Your task to perform on an android device: Go to battery settings Image 0: 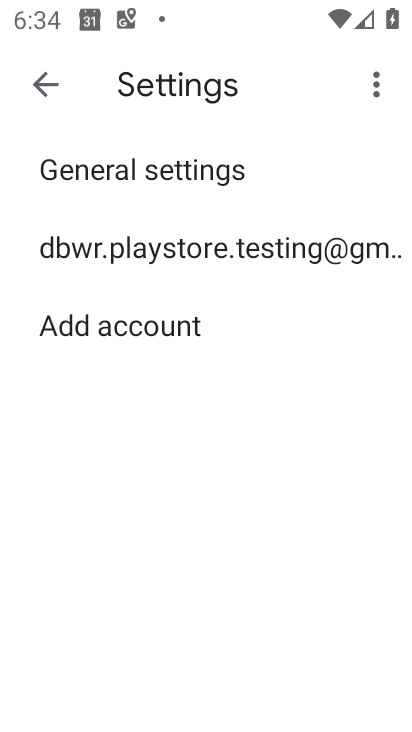
Step 0: press home button
Your task to perform on an android device: Go to battery settings Image 1: 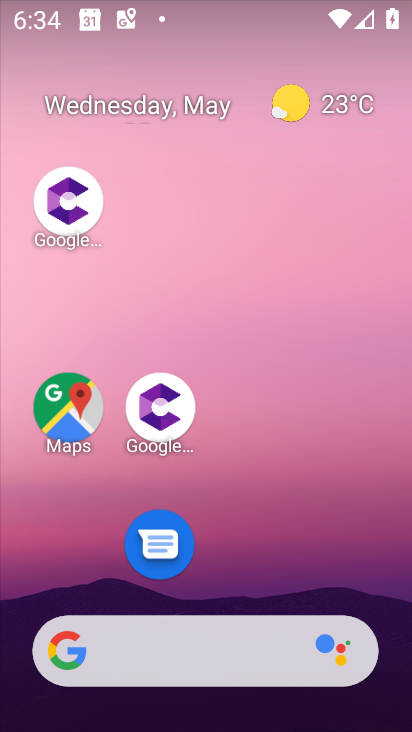
Step 1: drag from (289, 540) to (169, 31)
Your task to perform on an android device: Go to battery settings Image 2: 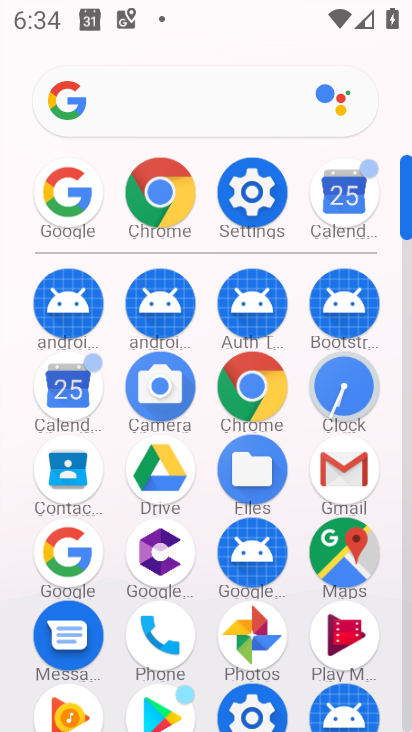
Step 2: click (240, 201)
Your task to perform on an android device: Go to battery settings Image 3: 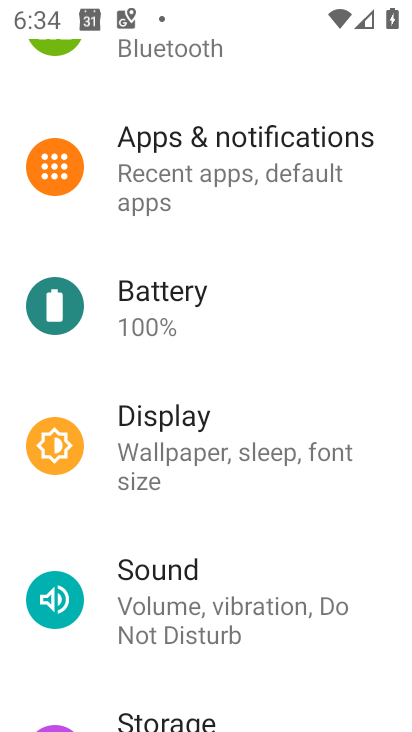
Step 3: click (156, 295)
Your task to perform on an android device: Go to battery settings Image 4: 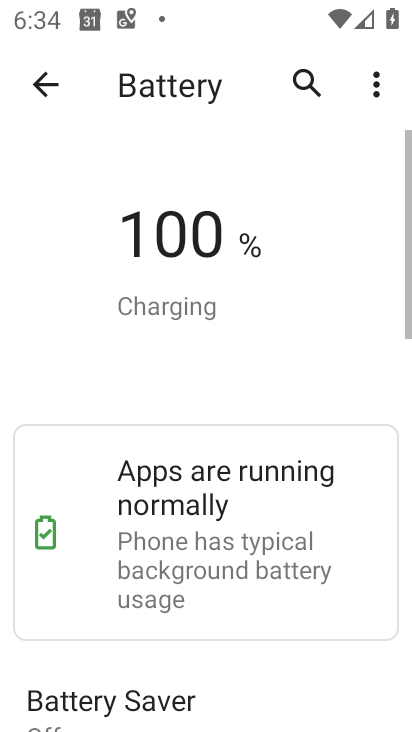
Step 4: task complete